Your task to perform on an android device: Open Youtube and go to the subscriptions tab Image 0: 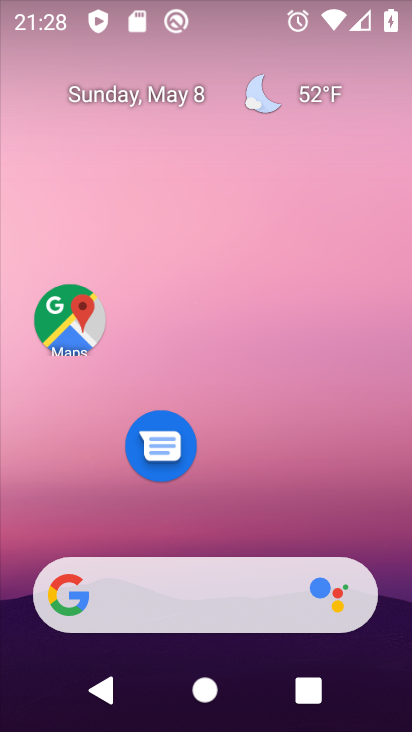
Step 0: drag from (287, 496) to (320, 138)
Your task to perform on an android device: Open Youtube and go to the subscriptions tab Image 1: 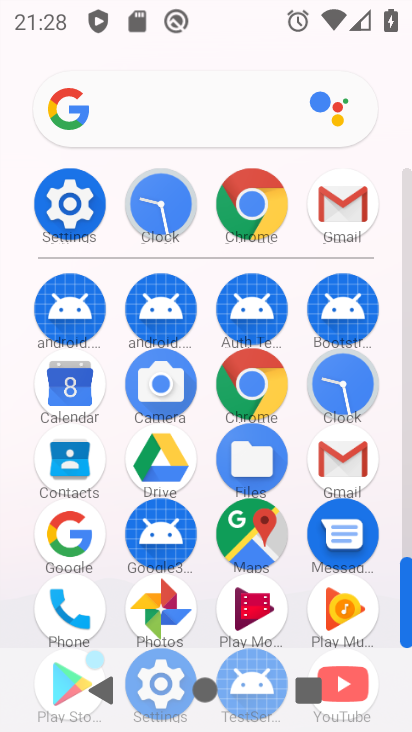
Step 1: drag from (291, 628) to (301, 333)
Your task to perform on an android device: Open Youtube and go to the subscriptions tab Image 2: 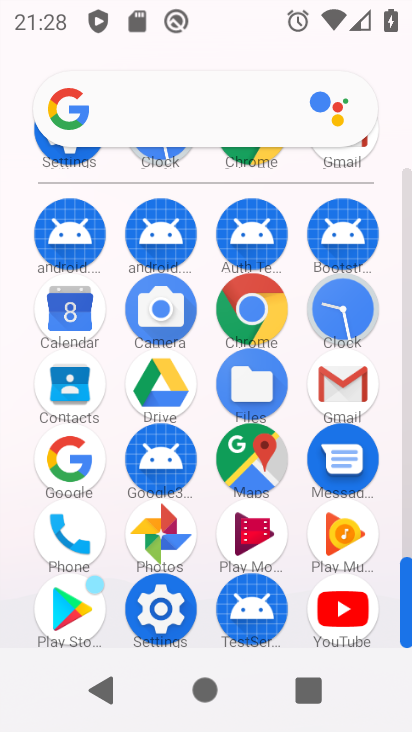
Step 2: click (348, 609)
Your task to perform on an android device: Open Youtube and go to the subscriptions tab Image 3: 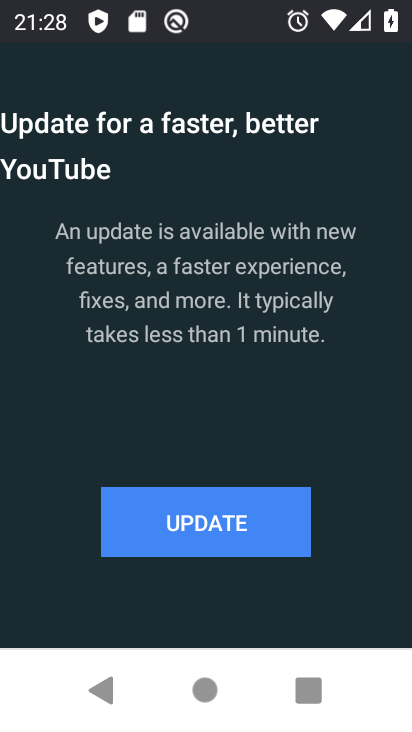
Step 3: click (238, 523)
Your task to perform on an android device: Open Youtube and go to the subscriptions tab Image 4: 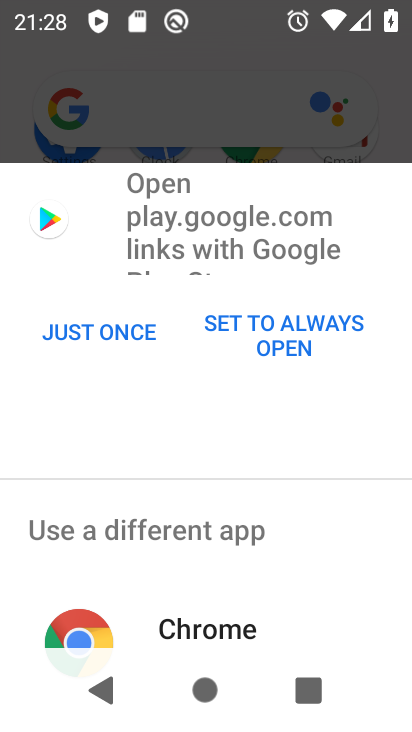
Step 4: click (114, 327)
Your task to perform on an android device: Open Youtube and go to the subscriptions tab Image 5: 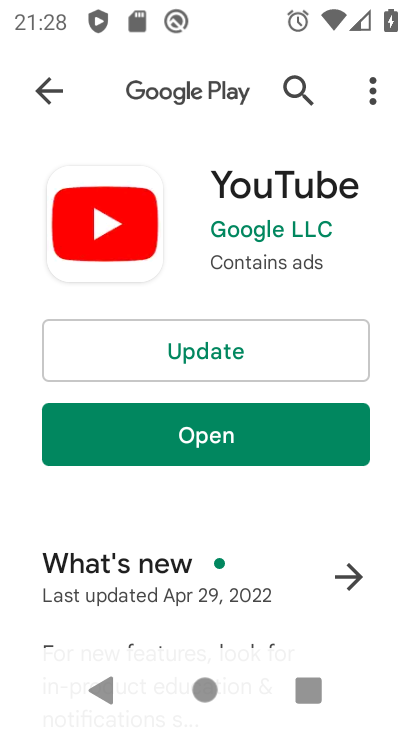
Step 5: click (153, 361)
Your task to perform on an android device: Open Youtube and go to the subscriptions tab Image 6: 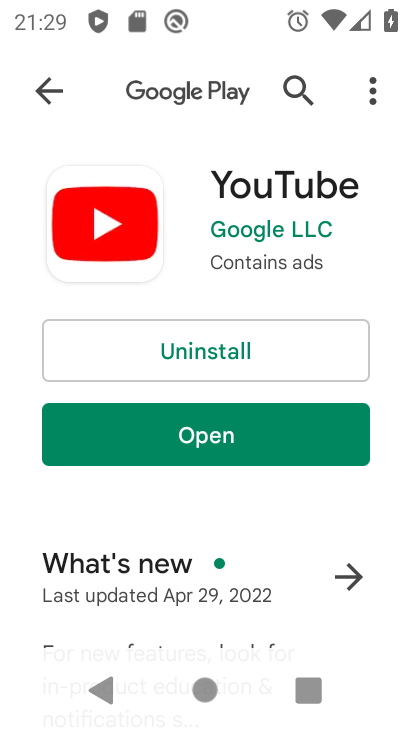
Step 6: click (244, 429)
Your task to perform on an android device: Open Youtube and go to the subscriptions tab Image 7: 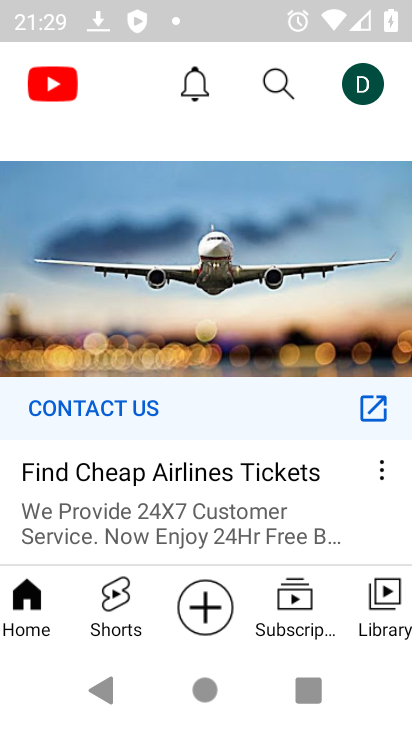
Step 7: drag from (364, 528) to (325, 175)
Your task to perform on an android device: Open Youtube and go to the subscriptions tab Image 8: 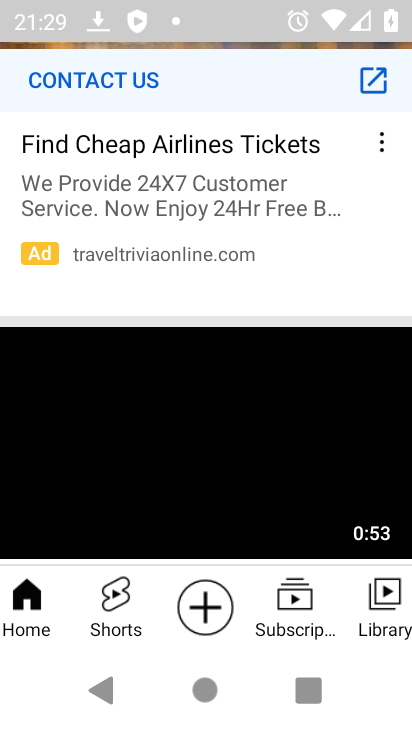
Step 8: drag from (287, 510) to (270, 233)
Your task to perform on an android device: Open Youtube and go to the subscriptions tab Image 9: 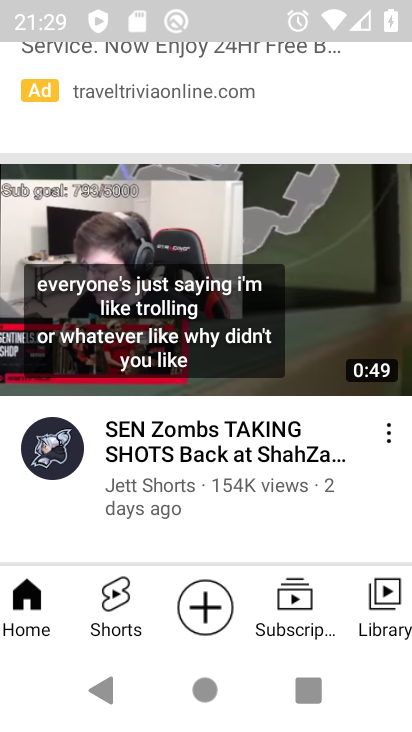
Step 9: click (293, 631)
Your task to perform on an android device: Open Youtube and go to the subscriptions tab Image 10: 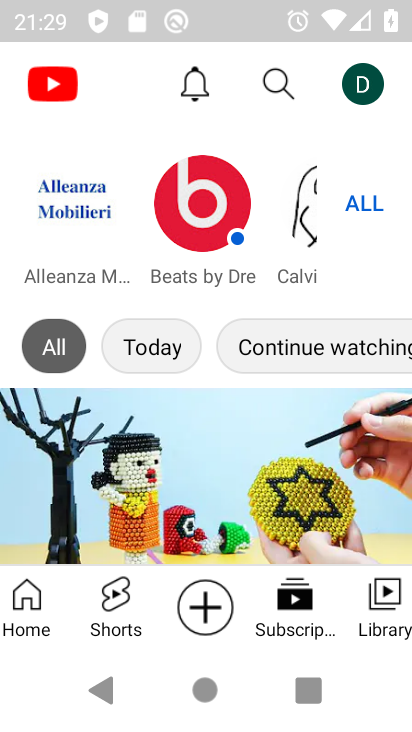
Step 10: task complete